Your task to perform on an android device: change timer sound Image 0: 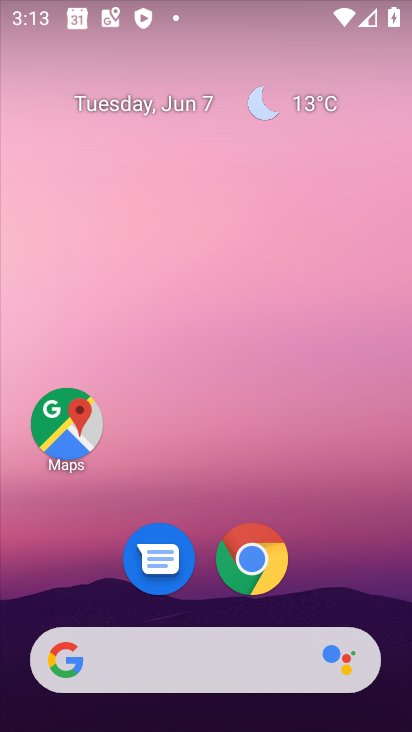
Step 0: drag from (321, 581) to (268, 118)
Your task to perform on an android device: change timer sound Image 1: 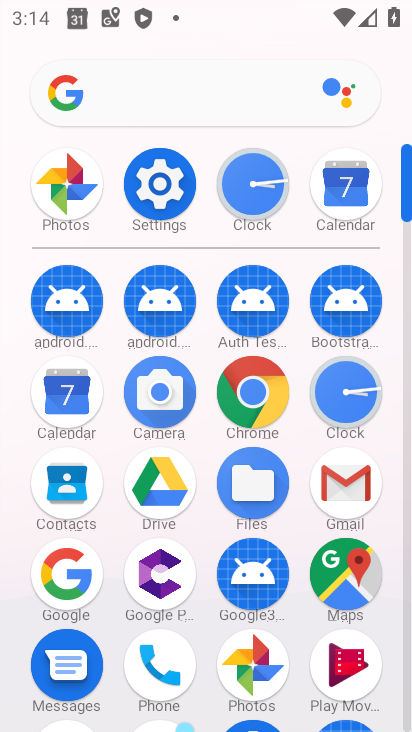
Step 1: click (254, 184)
Your task to perform on an android device: change timer sound Image 2: 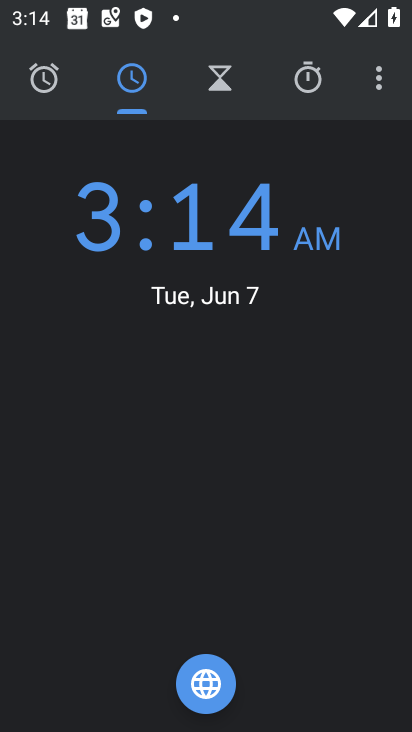
Step 2: click (379, 82)
Your task to perform on an android device: change timer sound Image 3: 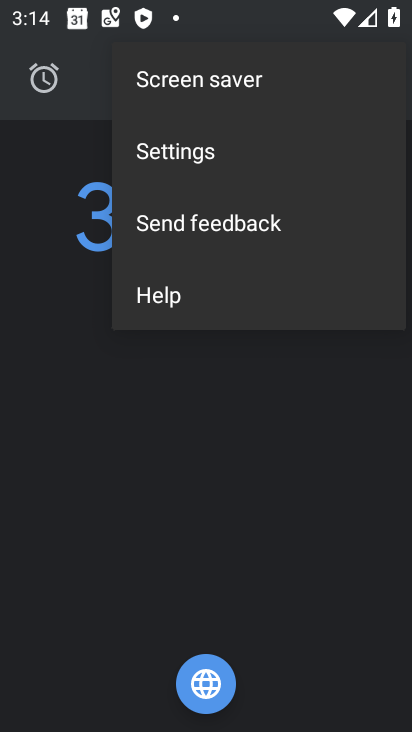
Step 3: click (188, 151)
Your task to perform on an android device: change timer sound Image 4: 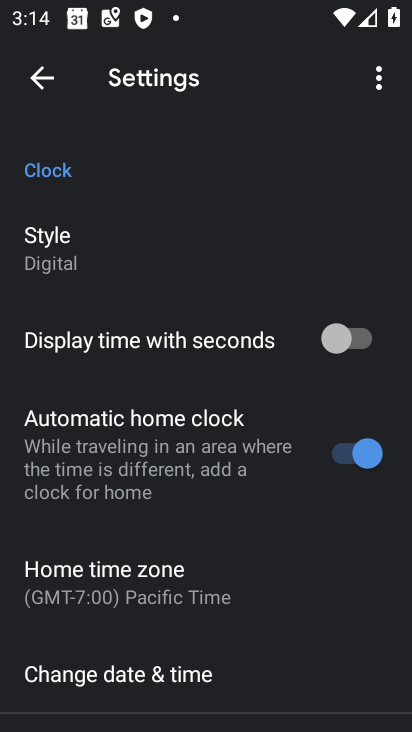
Step 4: drag from (150, 392) to (124, 263)
Your task to perform on an android device: change timer sound Image 5: 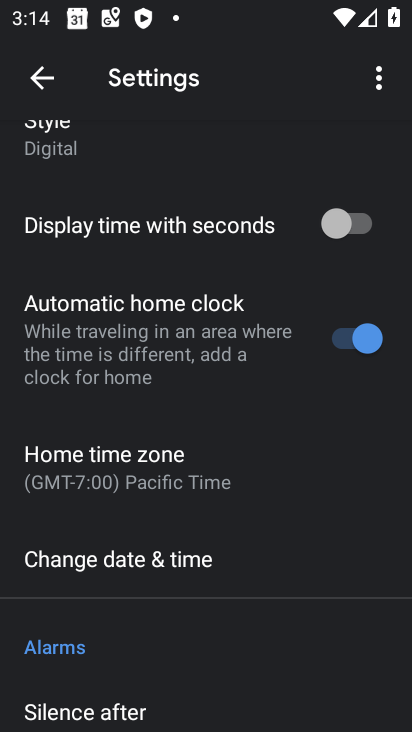
Step 5: drag from (104, 416) to (130, 293)
Your task to perform on an android device: change timer sound Image 6: 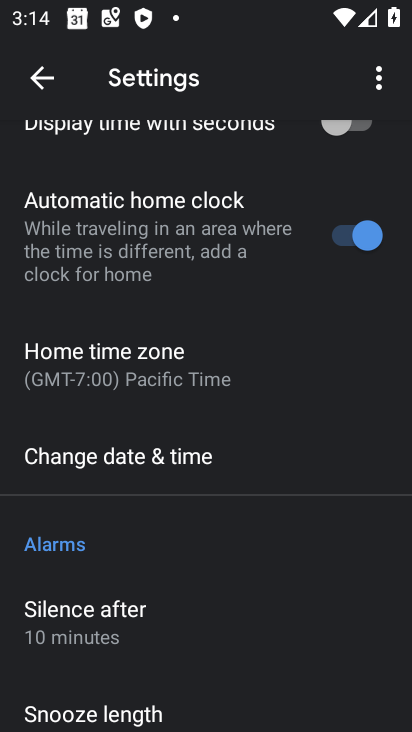
Step 6: drag from (108, 417) to (116, 290)
Your task to perform on an android device: change timer sound Image 7: 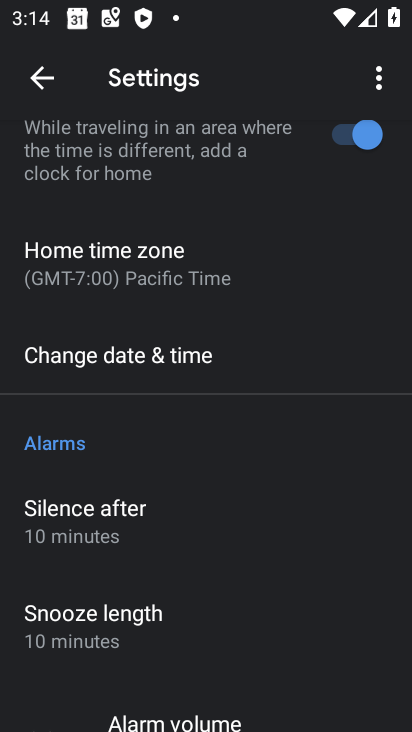
Step 7: drag from (136, 455) to (104, 304)
Your task to perform on an android device: change timer sound Image 8: 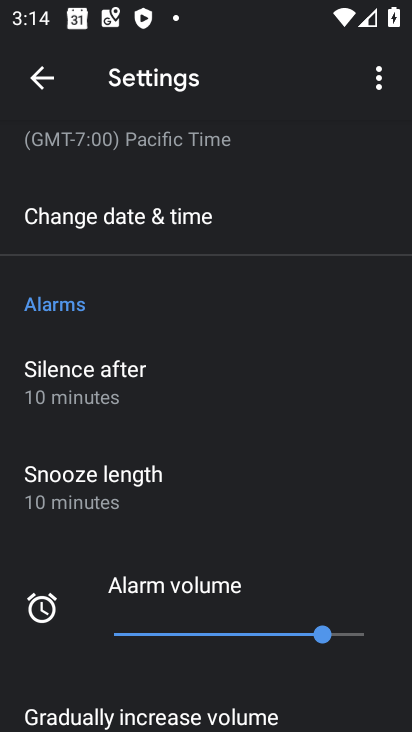
Step 8: drag from (107, 543) to (103, 421)
Your task to perform on an android device: change timer sound Image 9: 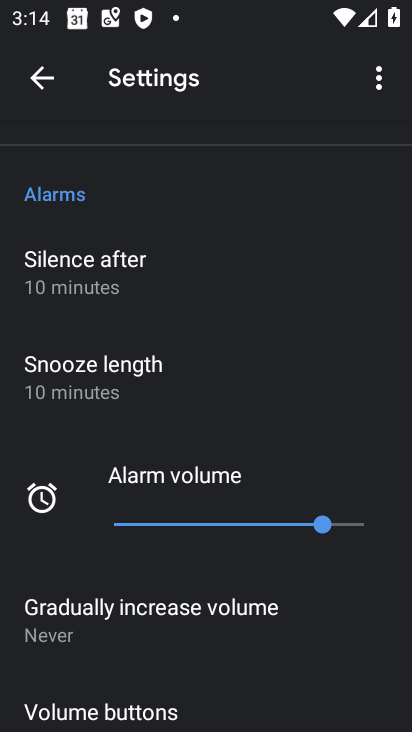
Step 9: drag from (104, 563) to (134, 436)
Your task to perform on an android device: change timer sound Image 10: 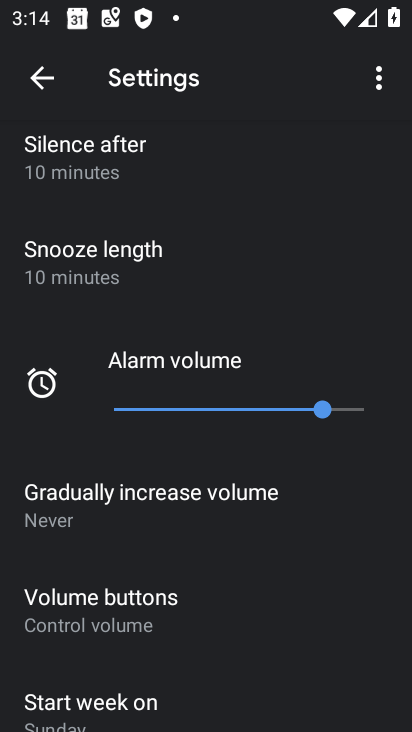
Step 10: drag from (130, 559) to (149, 443)
Your task to perform on an android device: change timer sound Image 11: 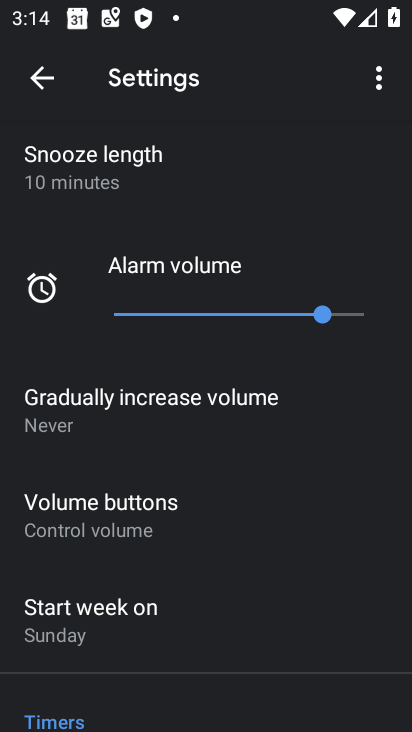
Step 11: drag from (137, 574) to (110, 436)
Your task to perform on an android device: change timer sound Image 12: 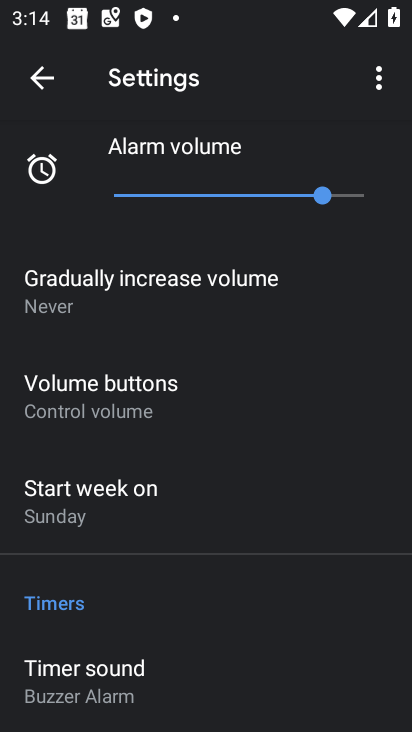
Step 12: drag from (140, 595) to (136, 429)
Your task to perform on an android device: change timer sound Image 13: 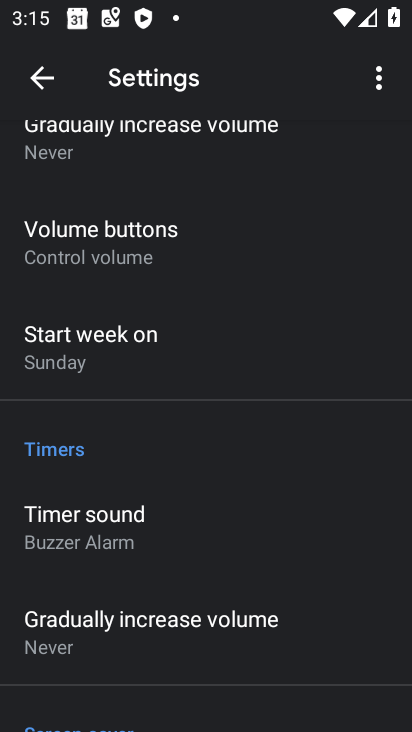
Step 13: click (127, 515)
Your task to perform on an android device: change timer sound Image 14: 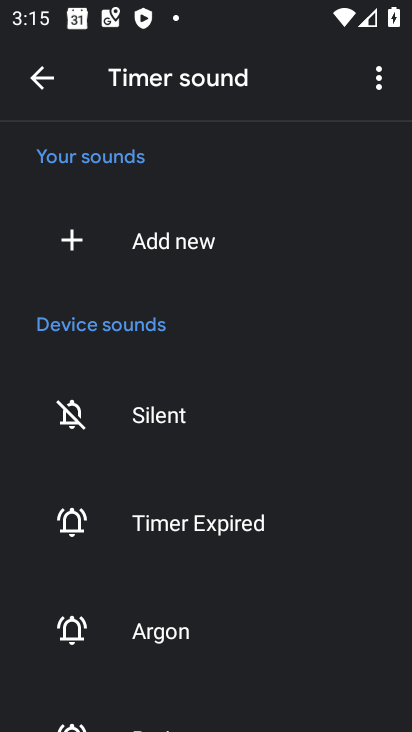
Step 14: drag from (206, 577) to (196, 325)
Your task to perform on an android device: change timer sound Image 15: 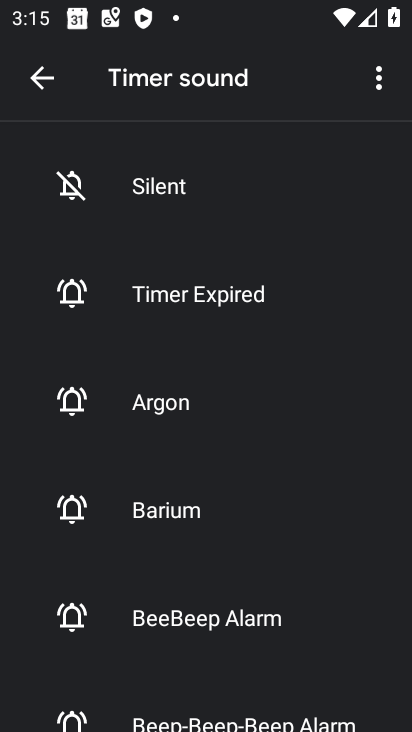
Step 15: drag from (220, 575) to (207, 333)
Your task to perform on an android device: change timer sound Image 16: 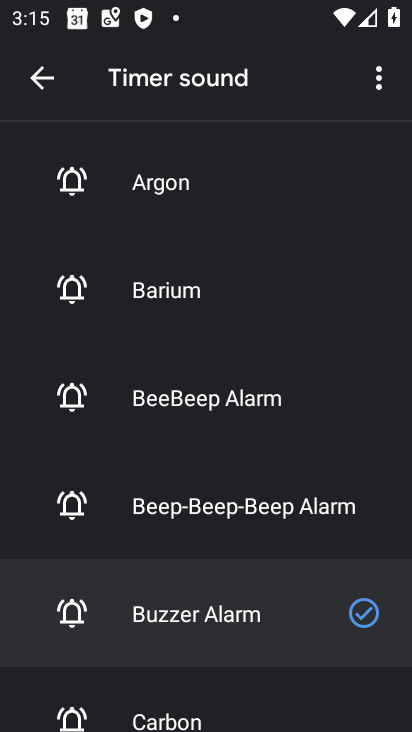
Step 16: drag from (202, 460) to (188, 240)
Your task to perform on an android device: change timer sound Image 17: 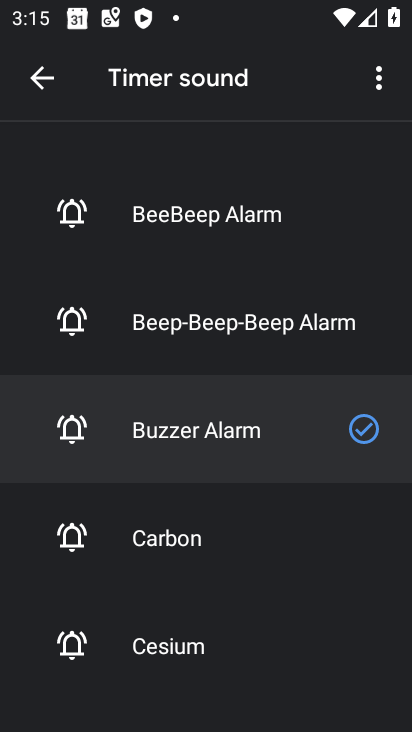
Step 17: drag from (169, 591) to (178, 306)
Your task to perform on an android device: change timer sound Image 18: 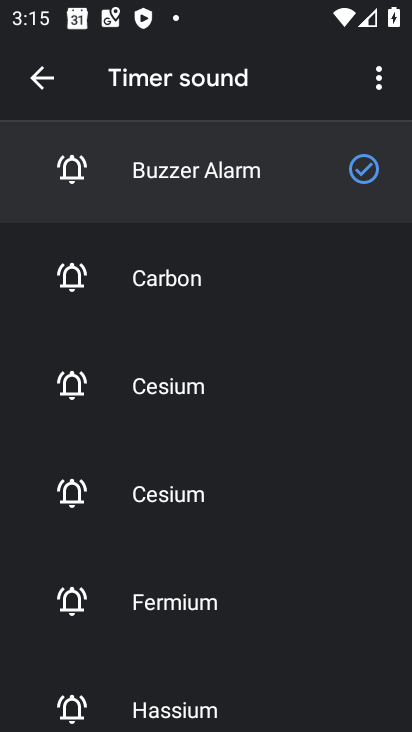
Step 18: drag from (165, 486) to (185, 288)
Your task to perform on an android device: change timer sound Image 19: 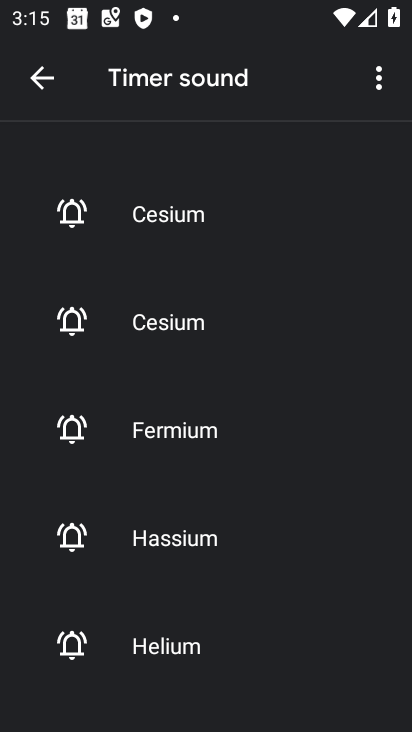
Step 19: click (161, 429)
Your task to perform on an android device: change timer sound Image 20: 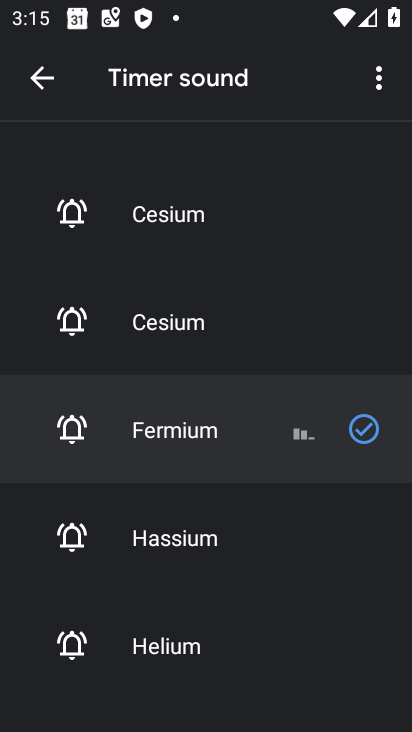
Step 20: task complete